Your task to perform on an android device: open a new tab in the chrome app Image 0: 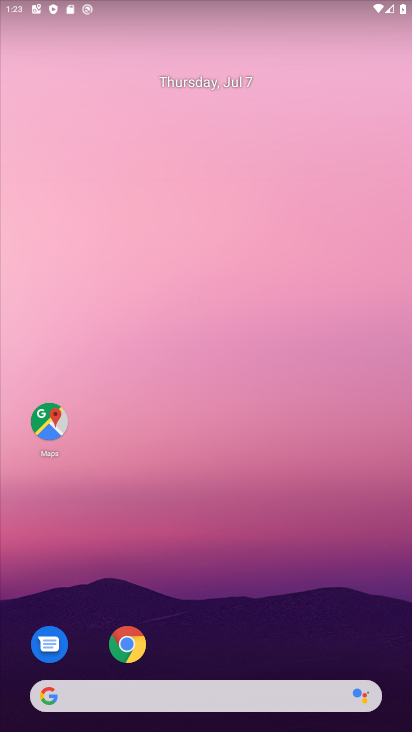
Step 0: click (122, 646)
Your task to perform on an android device: open a new tab in the chrome app Image 1: 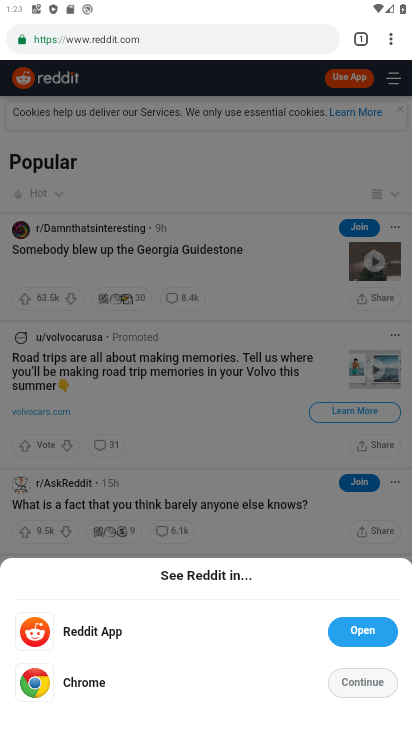
Step 1: click (392, 50)
Your task to perform on an android device: open a new tab in the chrome app Image 2: 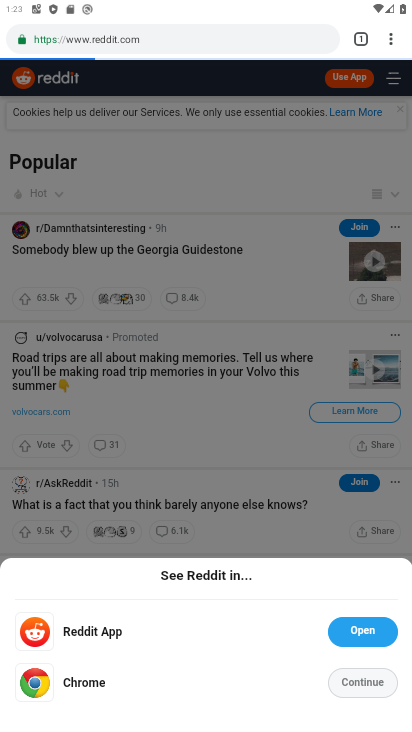
Step 2: task complete